Your task to perform on an android device: turn smart compose on in the gmail app Image 0: 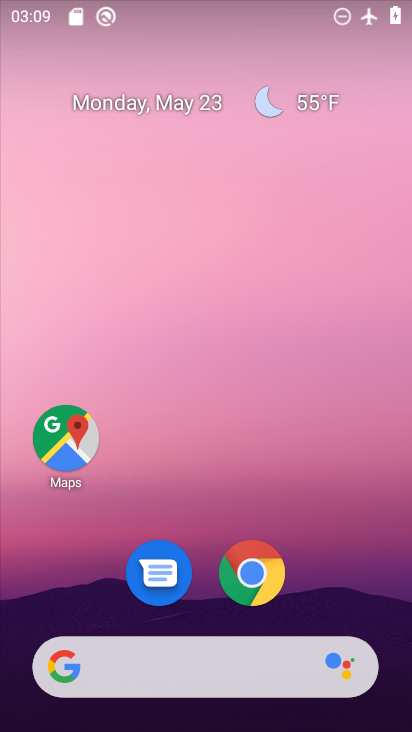
Step 0: drag from (330, 597) to (296, 66)
Your task to perform on an android device: turn smart compose on in the gmail app Image 1: 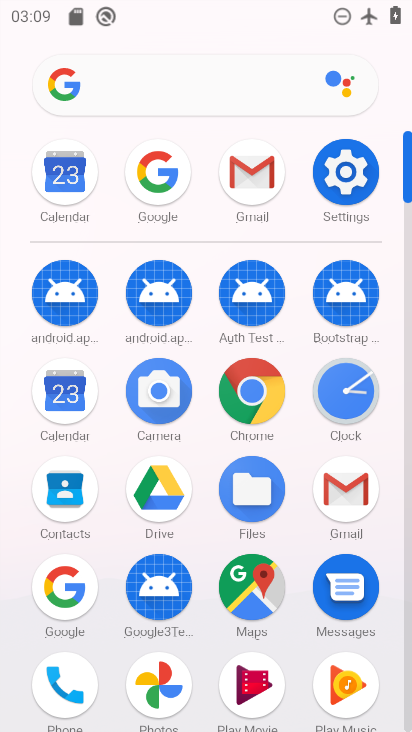
Step 1: click (254, 165)
Your task to perform on an android device: turn smart compose on in the gmail app Image 2: 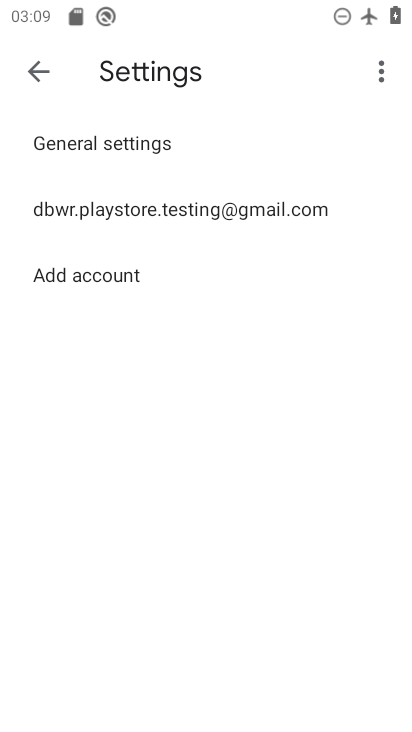
Step 2: click (226, 206)
Your task to perform on an android device: turn smart compose on in the gmail app Image 3: 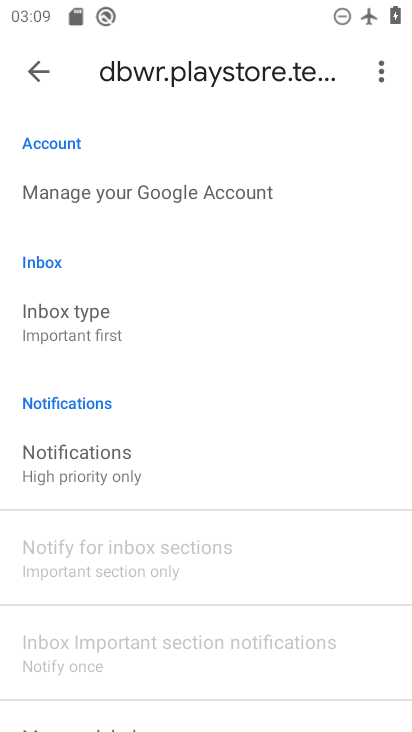
Step 3: task complete